Your task to perform on an android device: turn on translation in the chrome app Image 0: 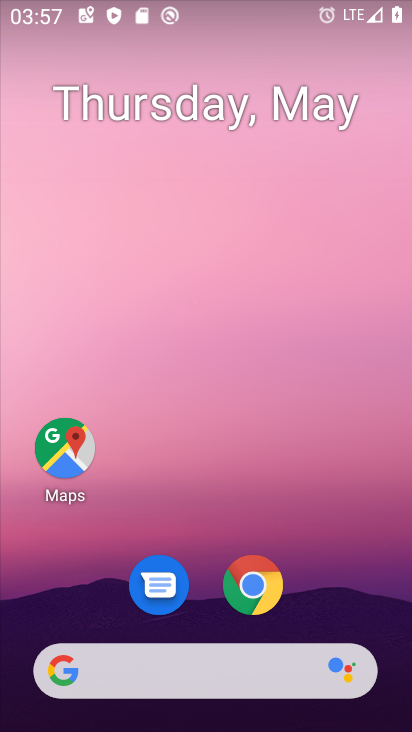
Step 0: click (266, 584)
Your task to perform on an android device: turn on translation in the chrome app Image 1: 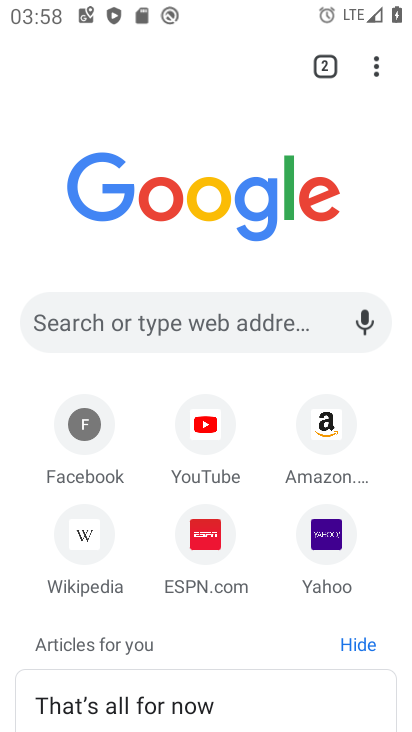
Step 1: click (372, 70)
Your task to perform on an android device: turn on translation in the chrome app Image 2: 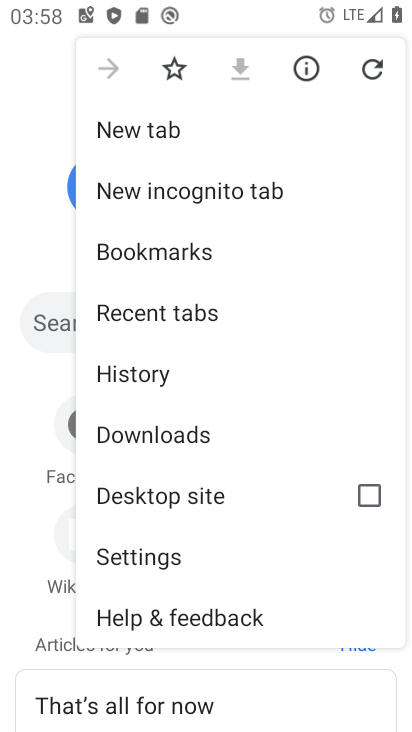
Step 2: click (180, 558)
Your task to perform on an android device: turn on translation in the chrome app Image 3: 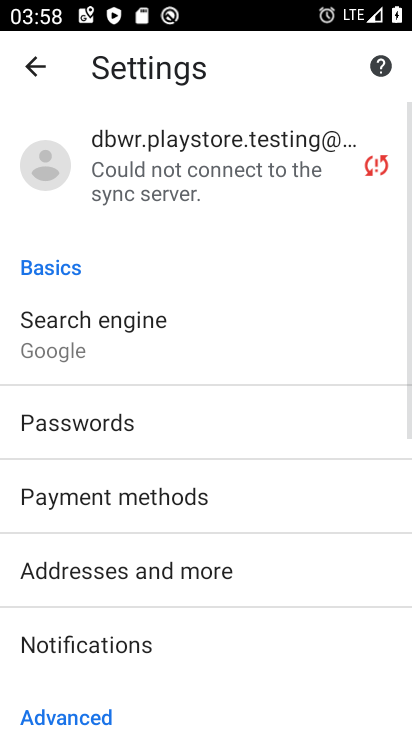
Step 3: drag from (257, 608) to (280, 278)
Your task to perform on an android device: turn on translation in the chrome app Image 4: 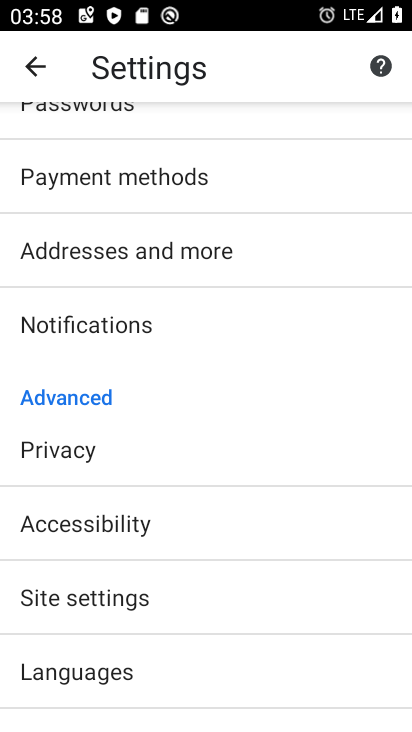
Step 4: click (225, 675)
Your task to perform on an android device: turn on translation in the chrome app Image 5: 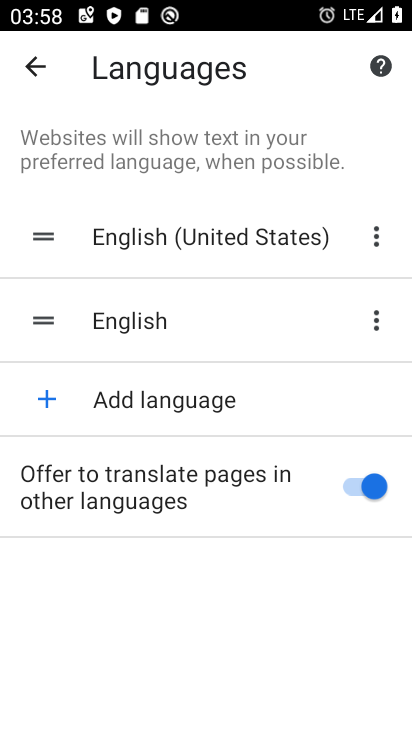
Step 5: task complete